Your task to perform on an android device: Go to Google Image 0: 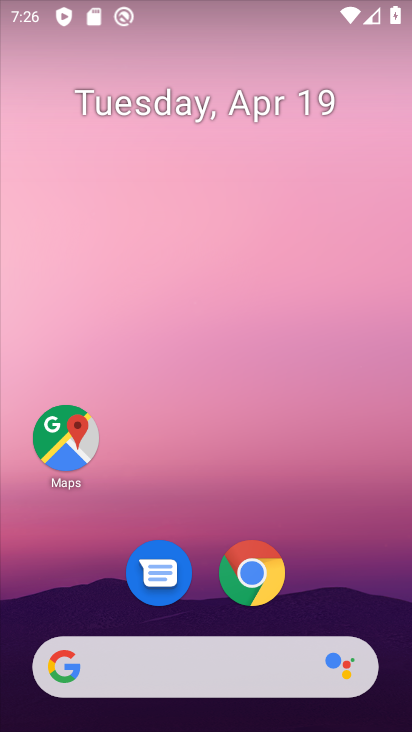
Step 0: drag from (298, 703) to (334, 202)
Your task to perform on an android device: Go to Google Image 1: 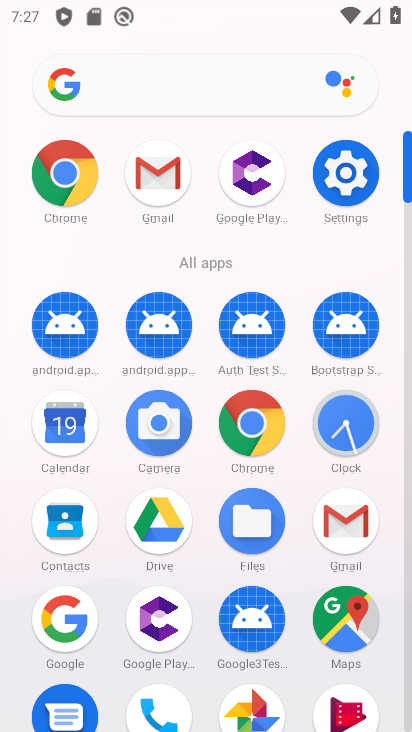
Step 1: click (61, 183)
Your task to perform on an android device: Go to Google Image 2: 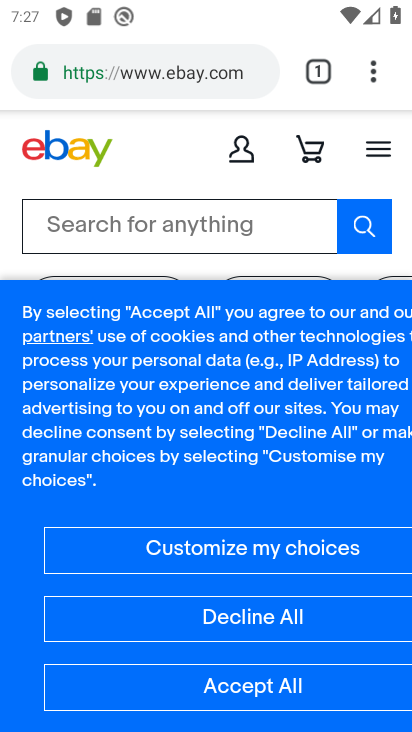
Step 2: click (224, 81)
Your task to perform on an android device: Go to Google Image 3: 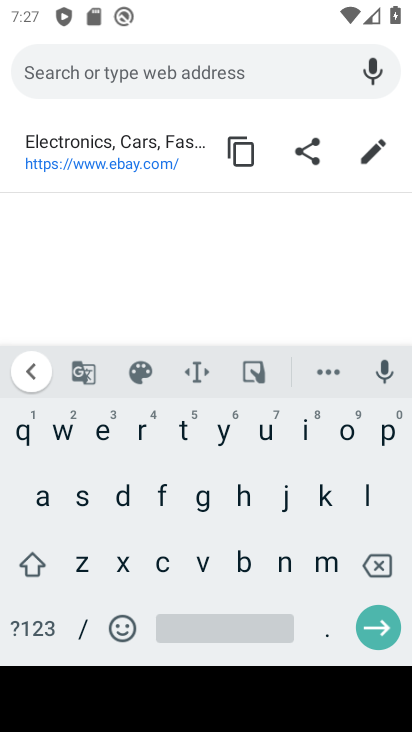
Step 3: click (207, 504)
Your task to perform on an android device: Go to Google Image 4: 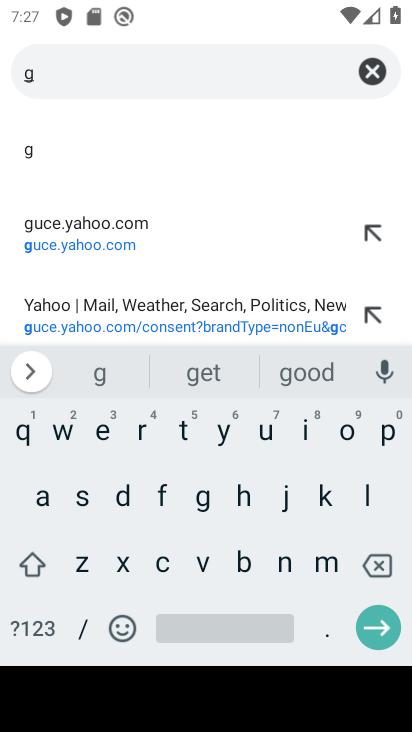
Step 4: click (345, 430)
Your task to perform on an android device: Go to Google Image 5: 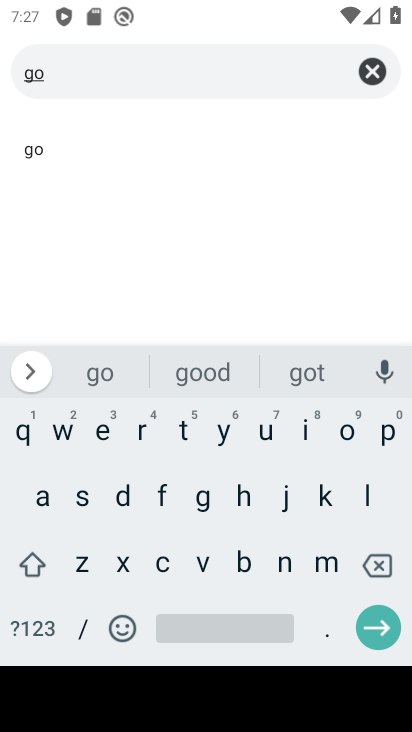
Step 5: click (346, 433)
Your task to perform on an android device: Go to Google Image 6: 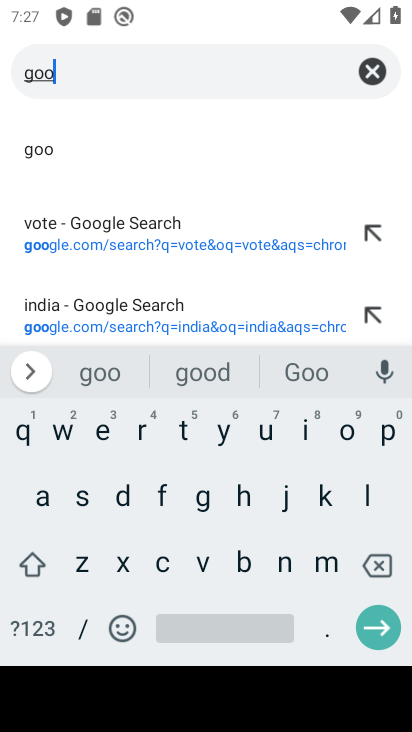
Step 6: click (195, 497)
Your task to perform on an android device: Go to Google Image 7: 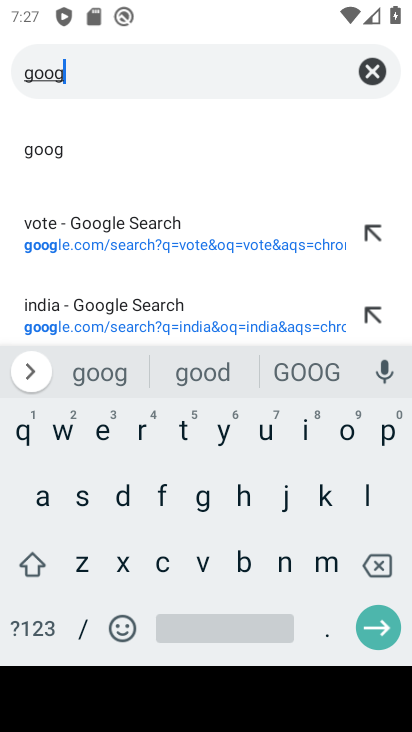
Step 7: click (361, 504)
Your task to perform on an android device: Go to Google Image 8: 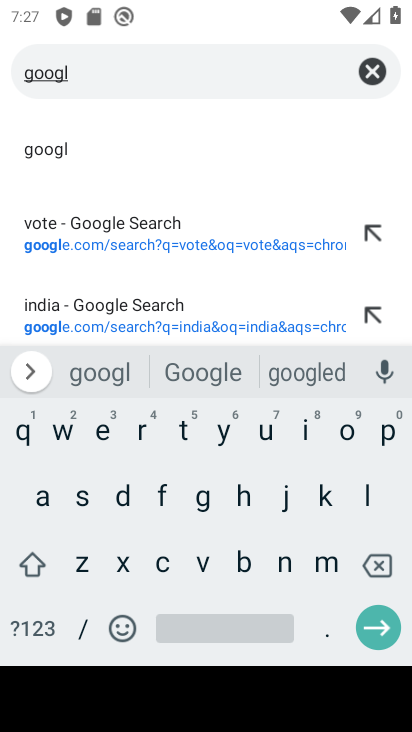
Step 8: click (111, 438)
Your task to perform on an android device: Go to Google Image 9: 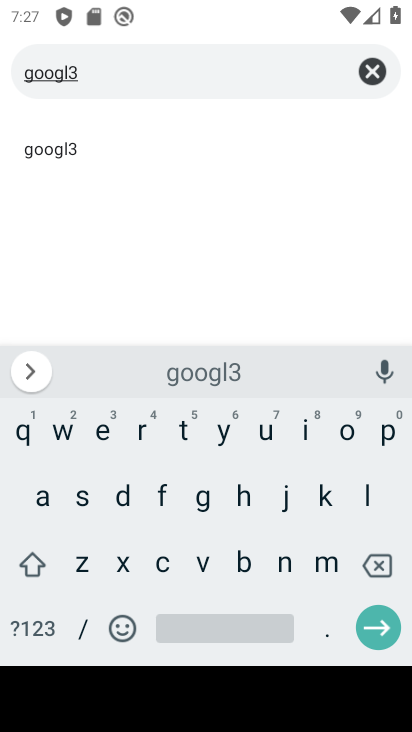
Step 9: click (380, 569)
Your task to perform on an android device: Go to Google Image 10: 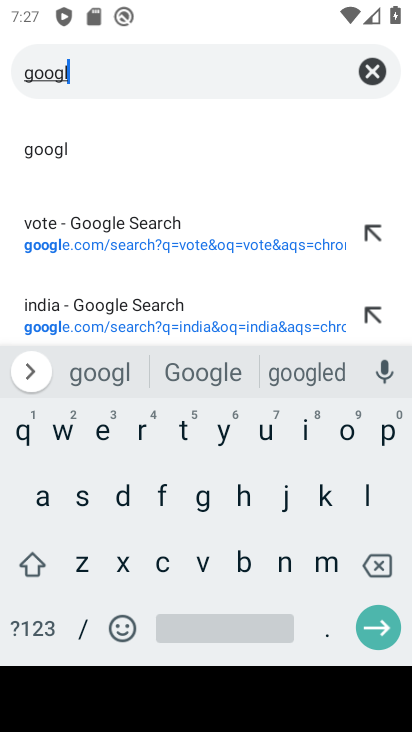
Step 10: click (103, 440)
Your task to perform on an android device: Go to Google Image 11: 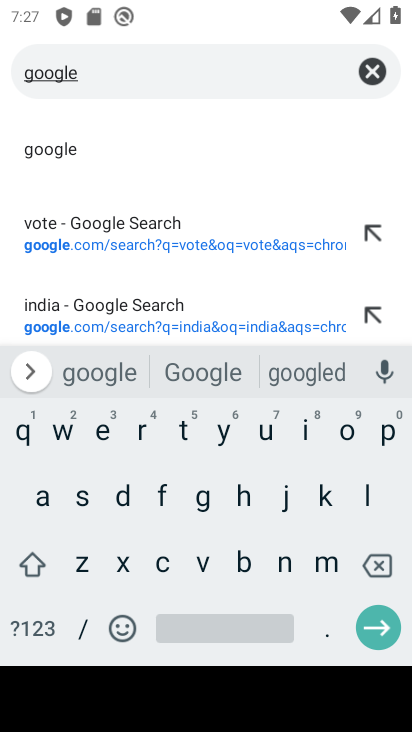
Step 11: click (326, 637)
Your task to perform on an android device: Go to Google Image 12: 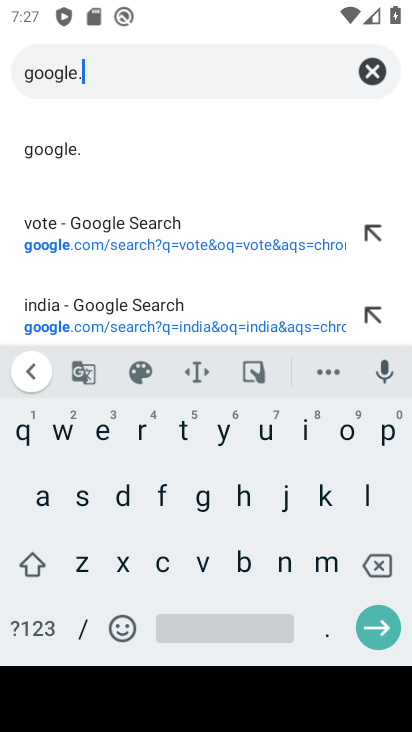
Step 12: click (160, 553)
Your task to perform on an android device: Go to Google Image 13: 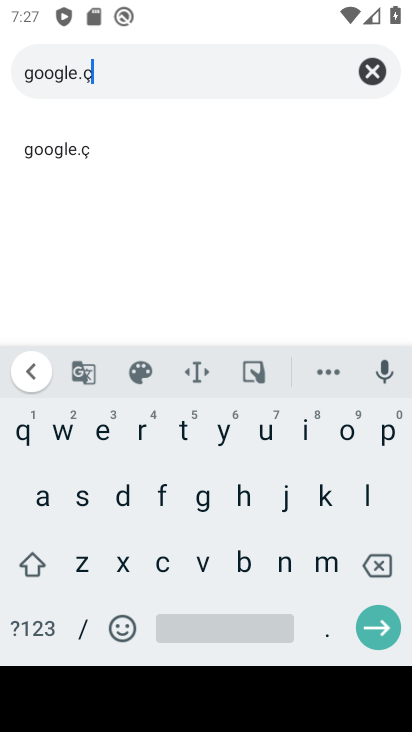
Step 13: click (345, 435)
Your task to perform on an android device: Go to Google Image 14: 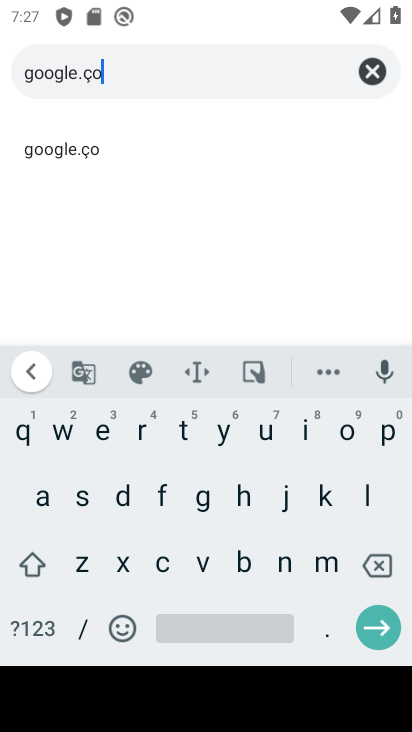
Step 14: click (374, 558)
Your task to perform on an android device: Go to Google Image 15: 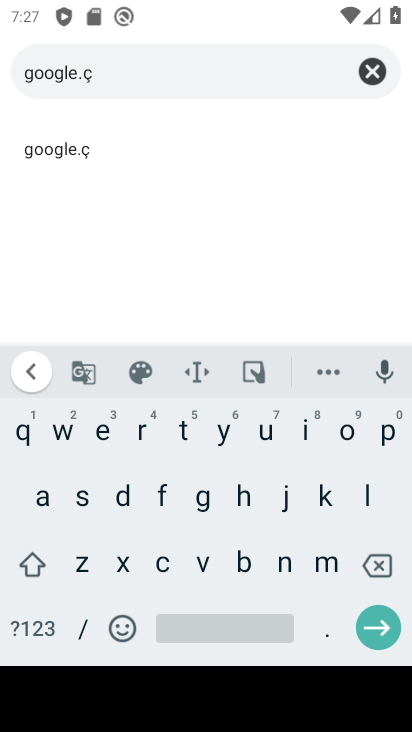
Step 15: click (374, 558)
Your task to perform on an android device: Go to Google Image 16: 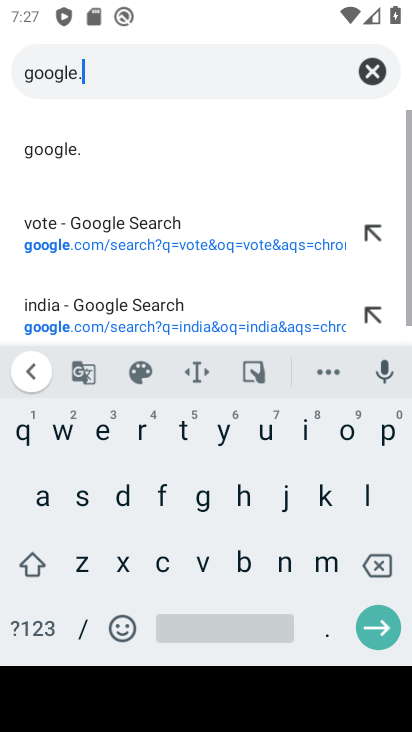
Step 16: click (162, 570)
Your task to perform on an android device: Go to Google Image 17: 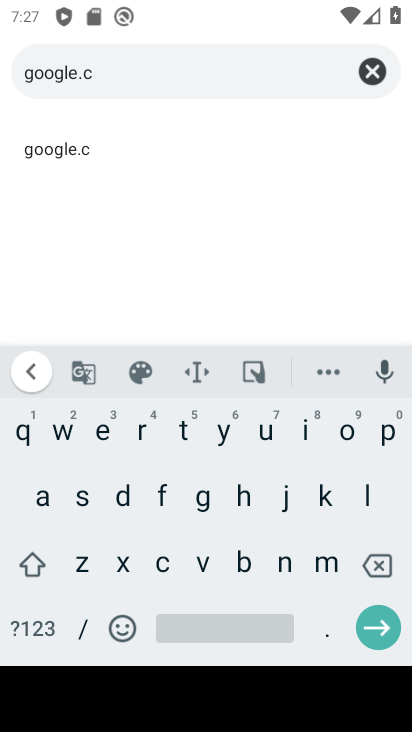
Step 17: click (340, 449)
Your task to perform on an android device: Go to Google Image 18: 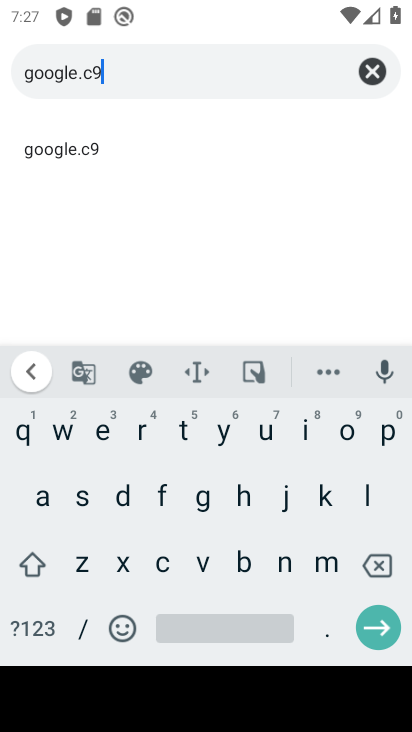
Step 18: click (371, 566)
Your task to perform on an android device: Go to Google Image 19: 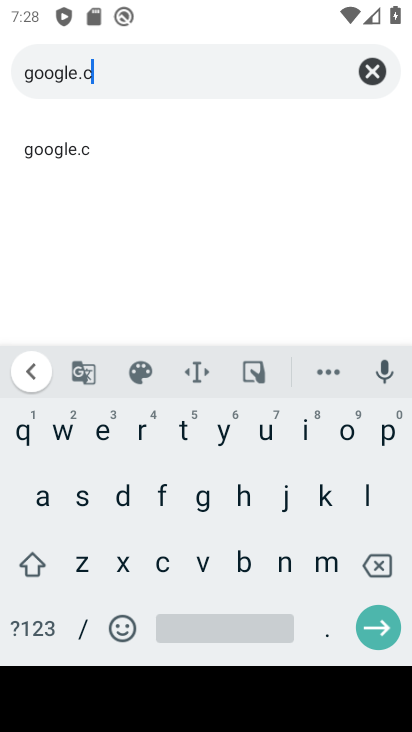
Step 19: click (343, 437)
Your task to perform on an android device: Go to Google Image 20: 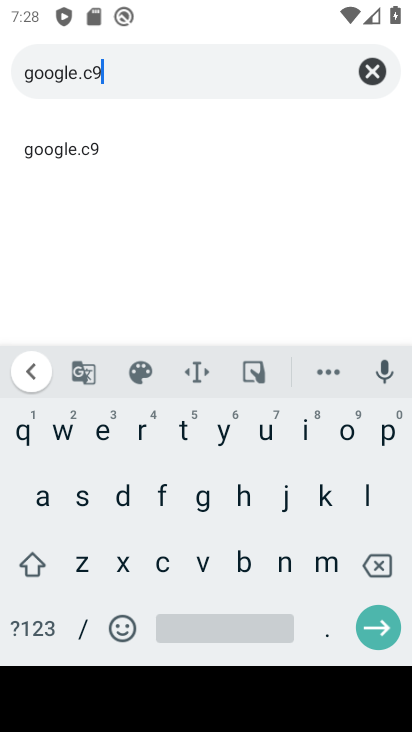
Step 20: click (375, 561)
Your task to perform on an android device: Go to Google Image 21: 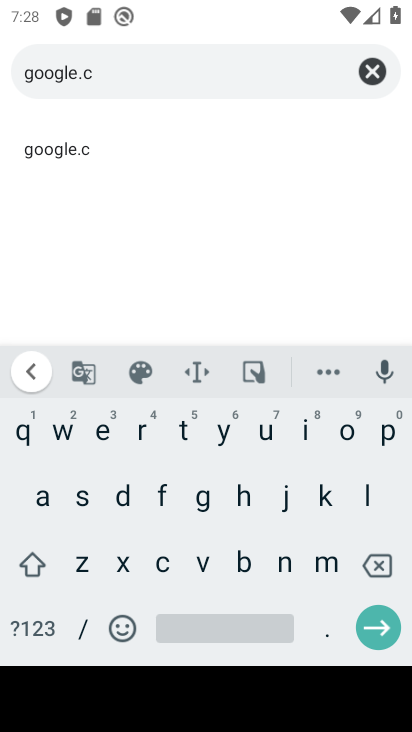
Step 21: click (345, 442)
Your task to perform on an android device: Go to Google Image 22: 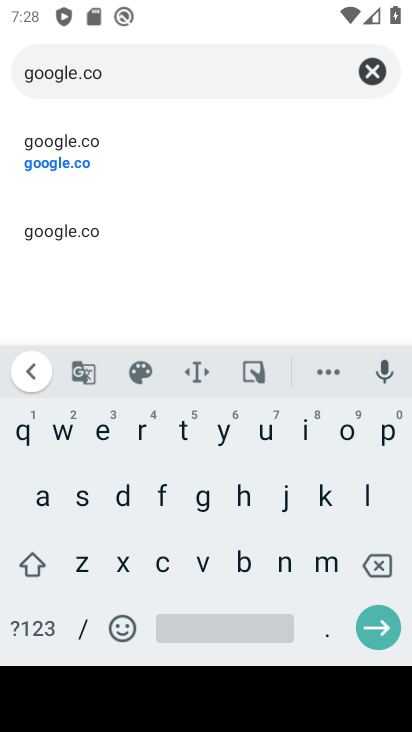
Step 22: click (330, 569)
Your task to perform on an android device: Go to Google Image 23: 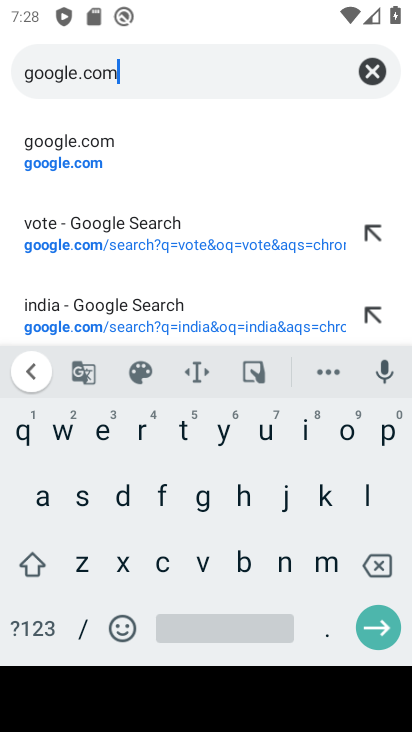
Step 23: click (375, 623)
Your task to perform on an android device: Go to Google Image 24: 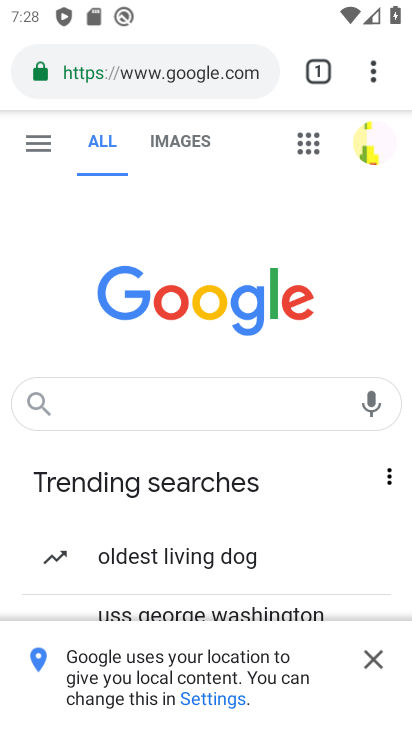
Step 24: click (382, 661)
Your task to perform on an android device: Go to Google Image 25: 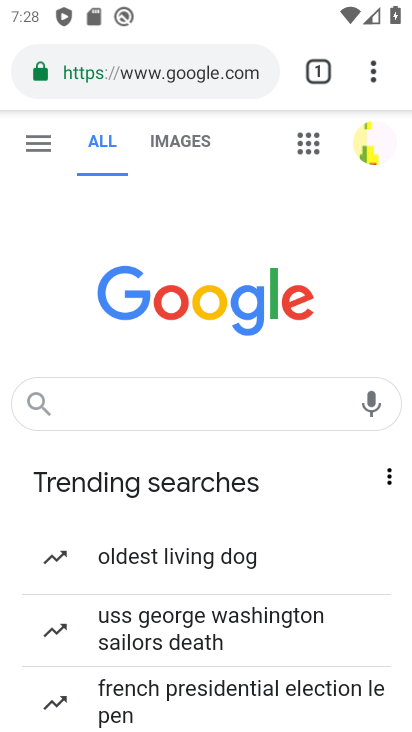
Step 25: task complete